Your task to perform on an android device: uninstall "Google Drive" Image 0: 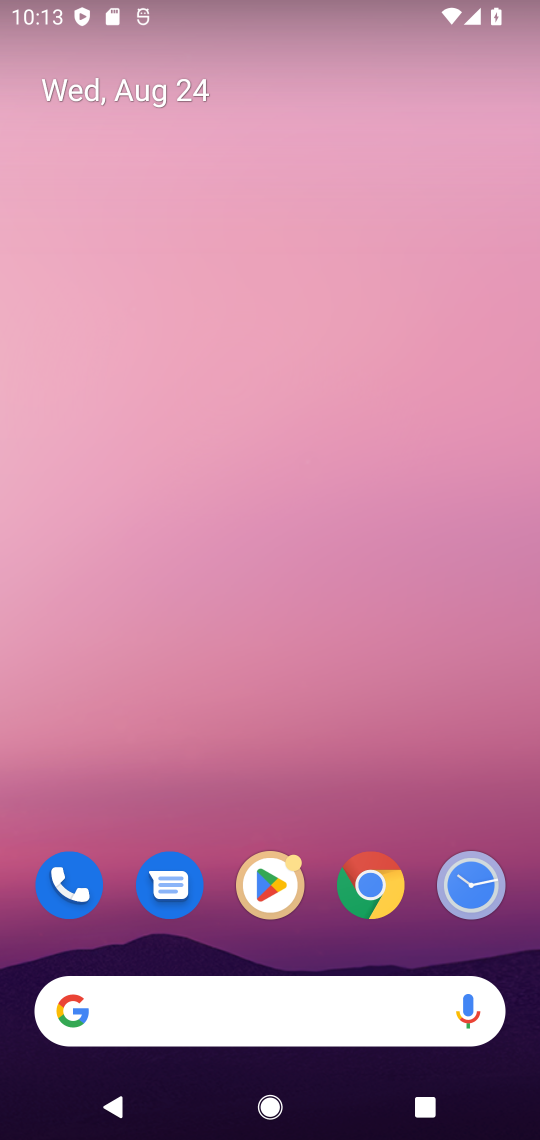
Step 0: press home button
Your task to perform on an android device: uninstall "Google Drive" Image 1: 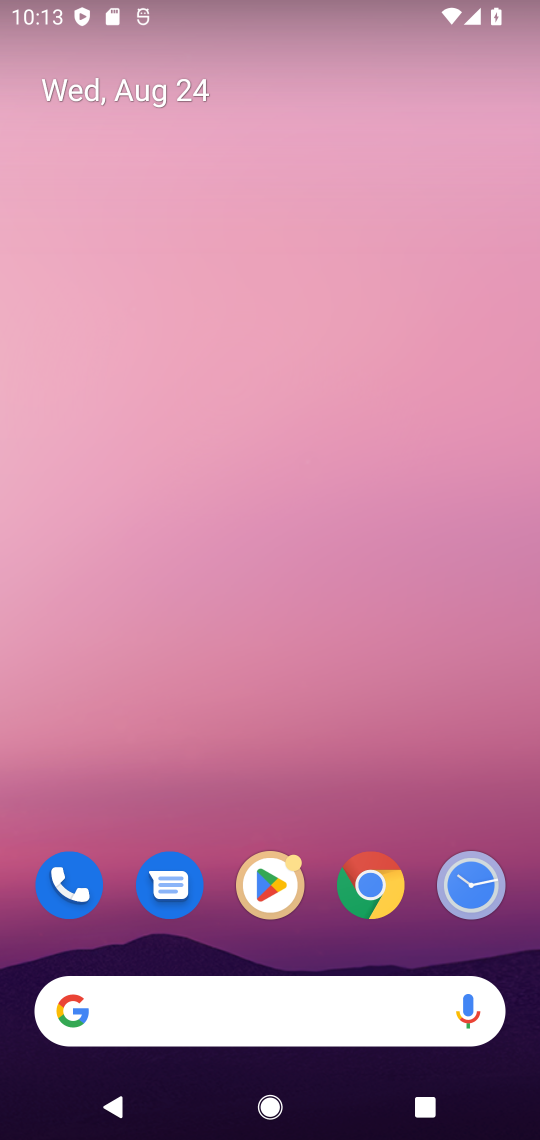
Step 1: click (270, 874)
Your task to perform on an android device: uninstall "Google Drive" Image 2: 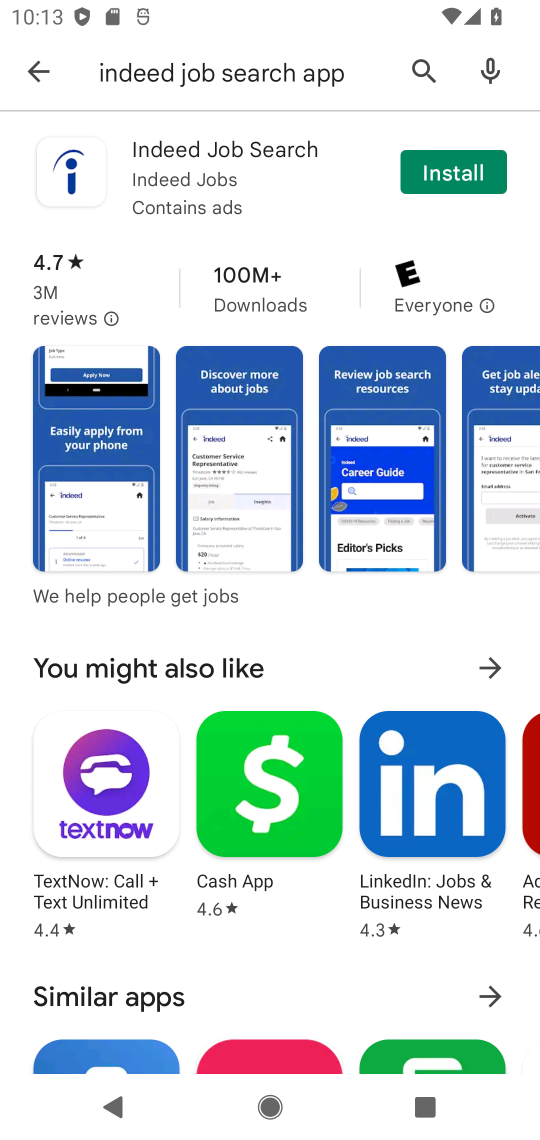
Step 2: click (418, 68)
Your task to perform on an android device: uninstall "Google Drive" Image 3: 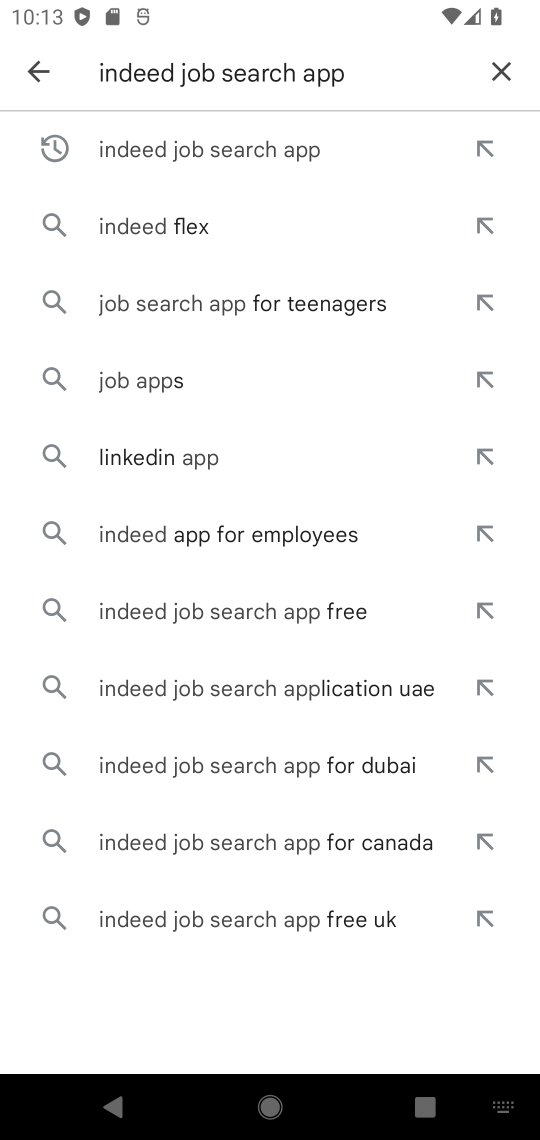
Step 3: click (503, 78)
Your task to perform on an android device: uninstall "Google Drive" Image 4: 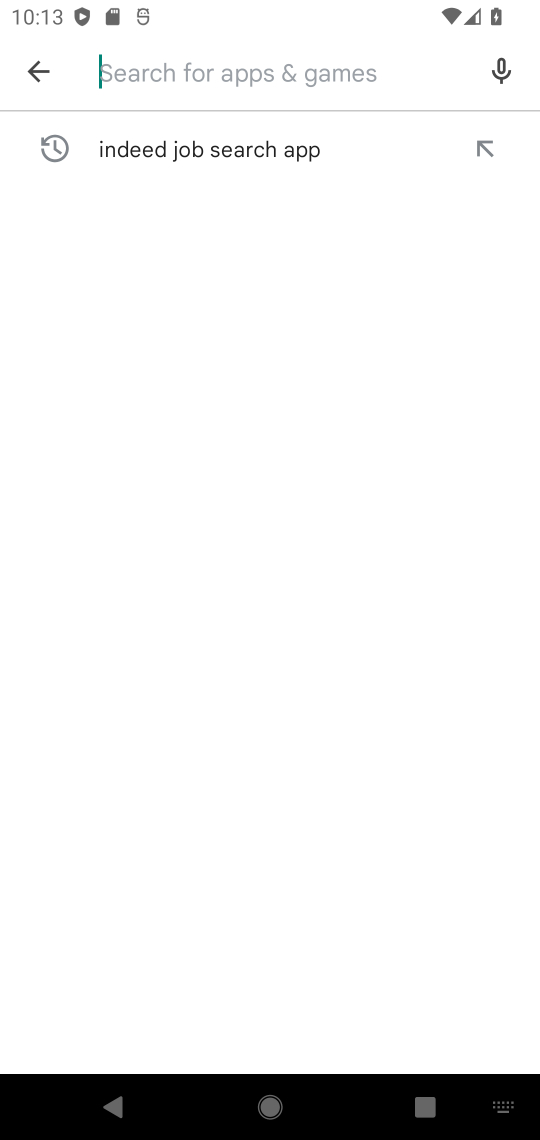
Step 4: type "Google Drive"
Your task to perform on an android device: uninstall "Google Drive" Image 5: 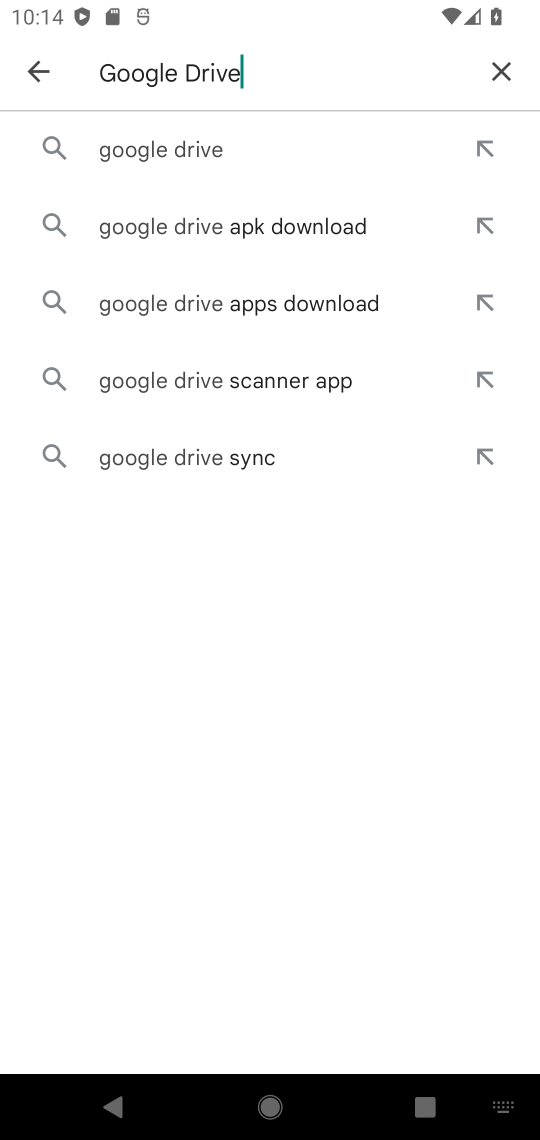
Step 5: click (236, 157)
Your task to perform on an android device: uninstall "Google Drive" Image 6: 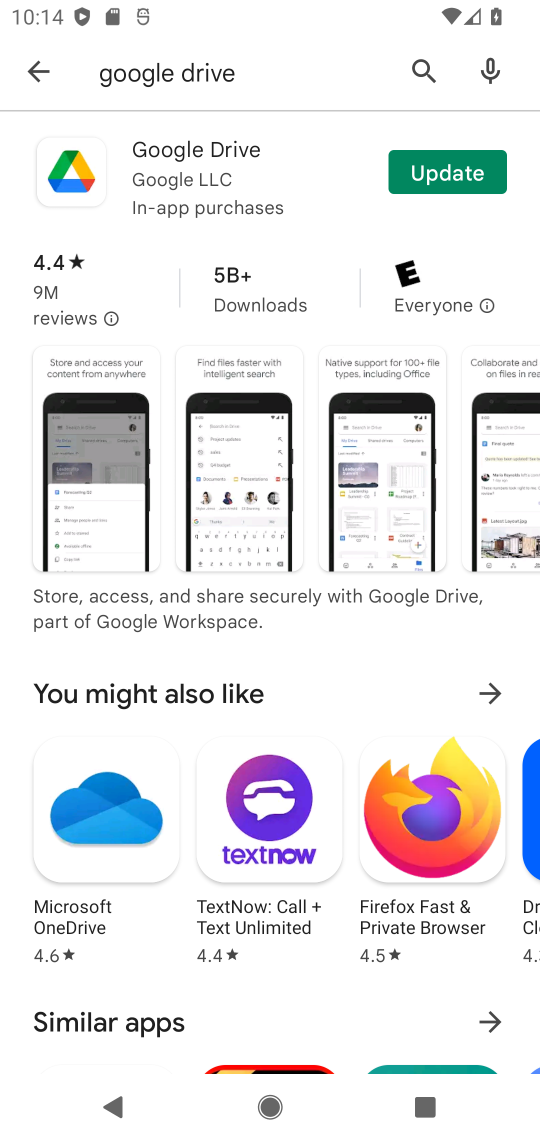
Step 6: task complete